Your task to perform on an android device: Go to sound settings Image 0: 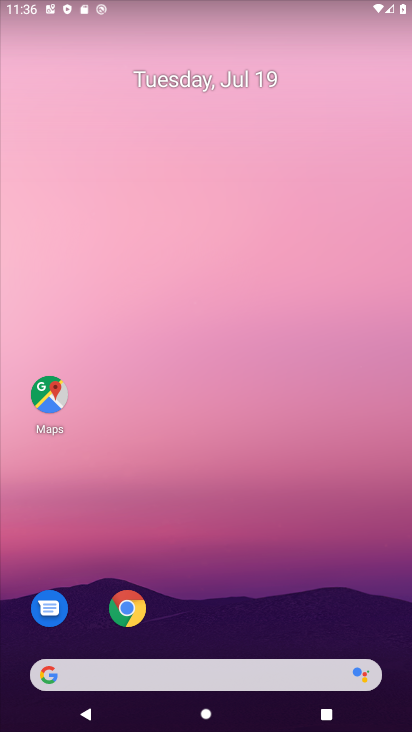
Step 0: drag from (179, 622) to (243, 57)
Your task to perform on an android device: Go to sound settings Image 1: 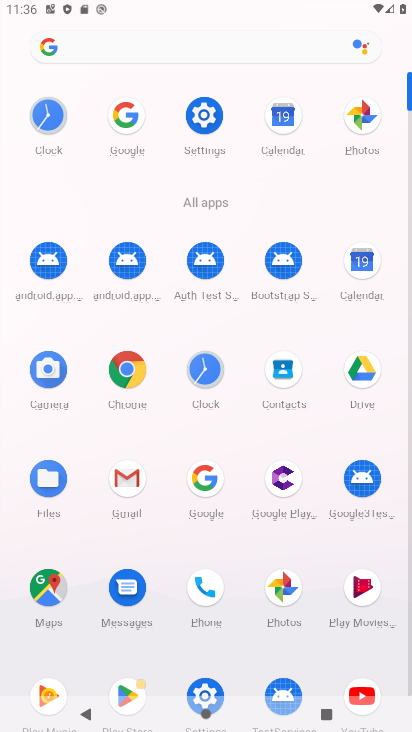
Step 1: click (200, 112)
Your task to perform on an android device: Go to sound settings Image 2: 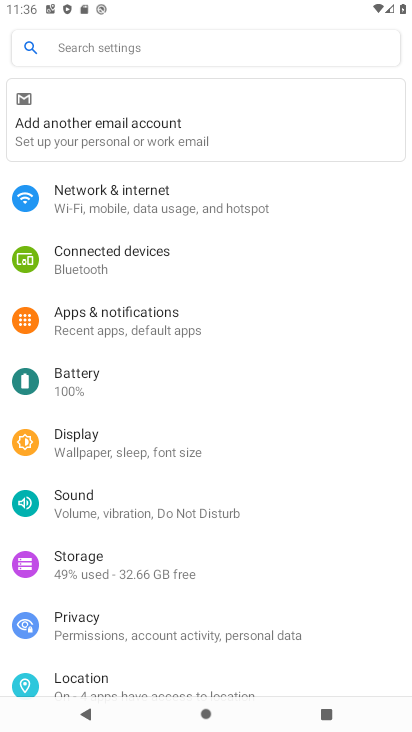
Step 2: click (93, 493)
Your task to perform on an android device: Go to sound settings Image 3: 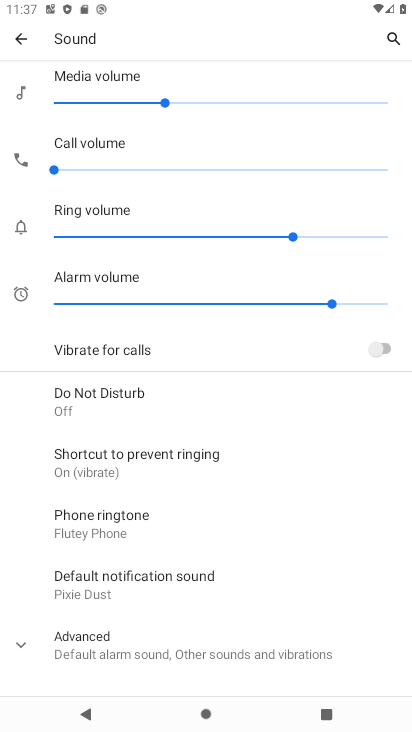
Step 3: task complete